Your task to perform on an android device: Clear all items from cart on walmart.com. Add "usb-c to usb-a" to the cart on walmart.com Image 0: 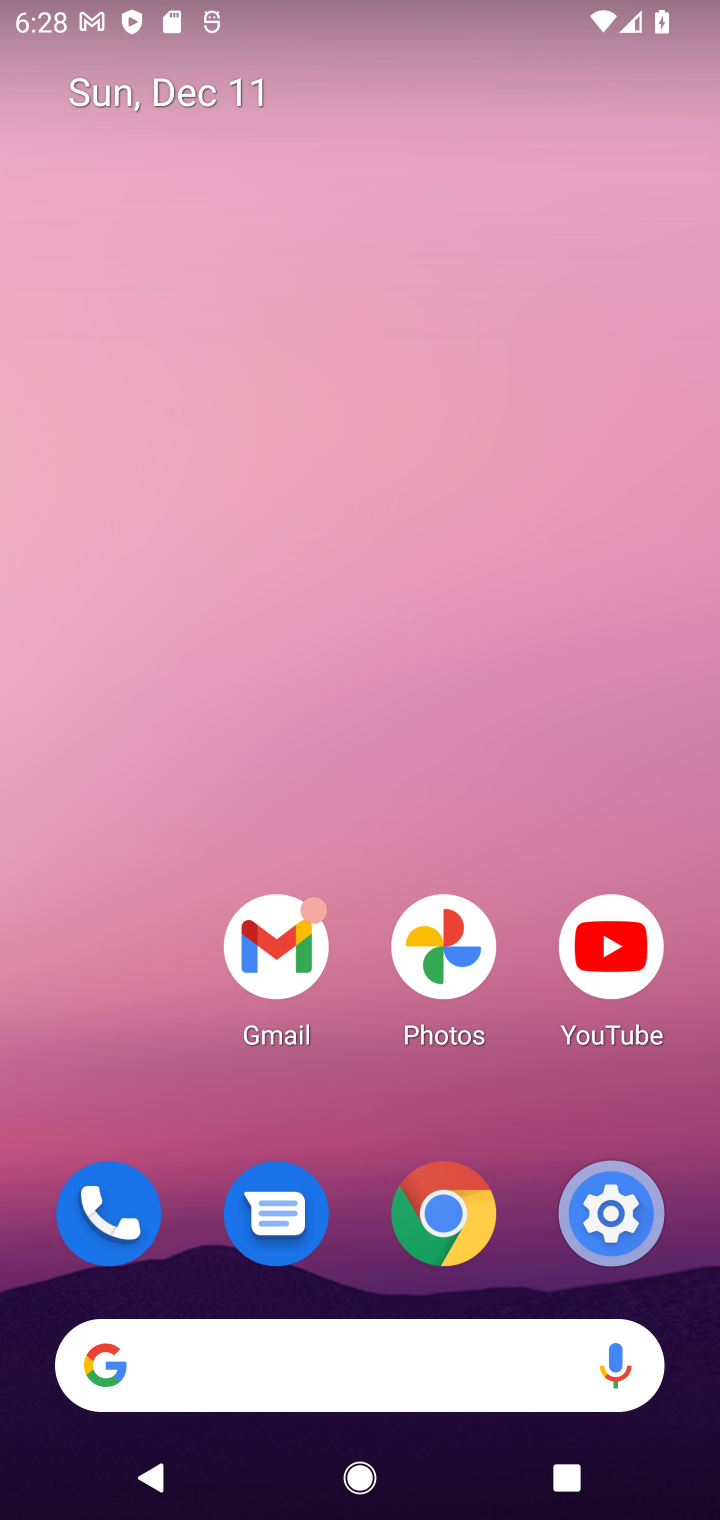
Step 0: click (401, 1354)
Your task to perform on an android device: Clear all items from cart on walmart.com. Add "usb-c to usb-a" to the cart on walmart.com Image 1: 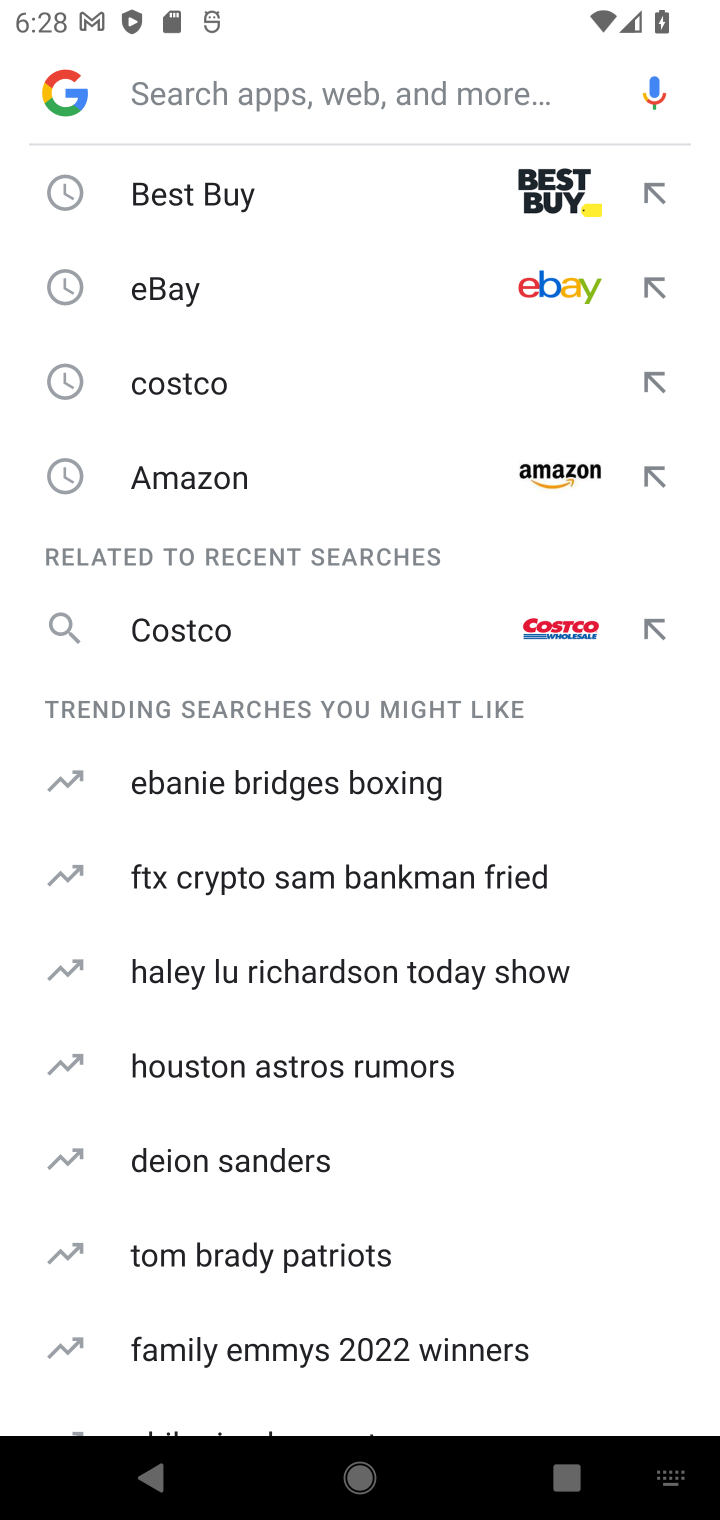
Step 1: type "walmart'"
Your task to perform on an android device: Clear all items from cart on walmart.com. Add "usb-c to usb-a" to the cart on walmart.com Image 2: 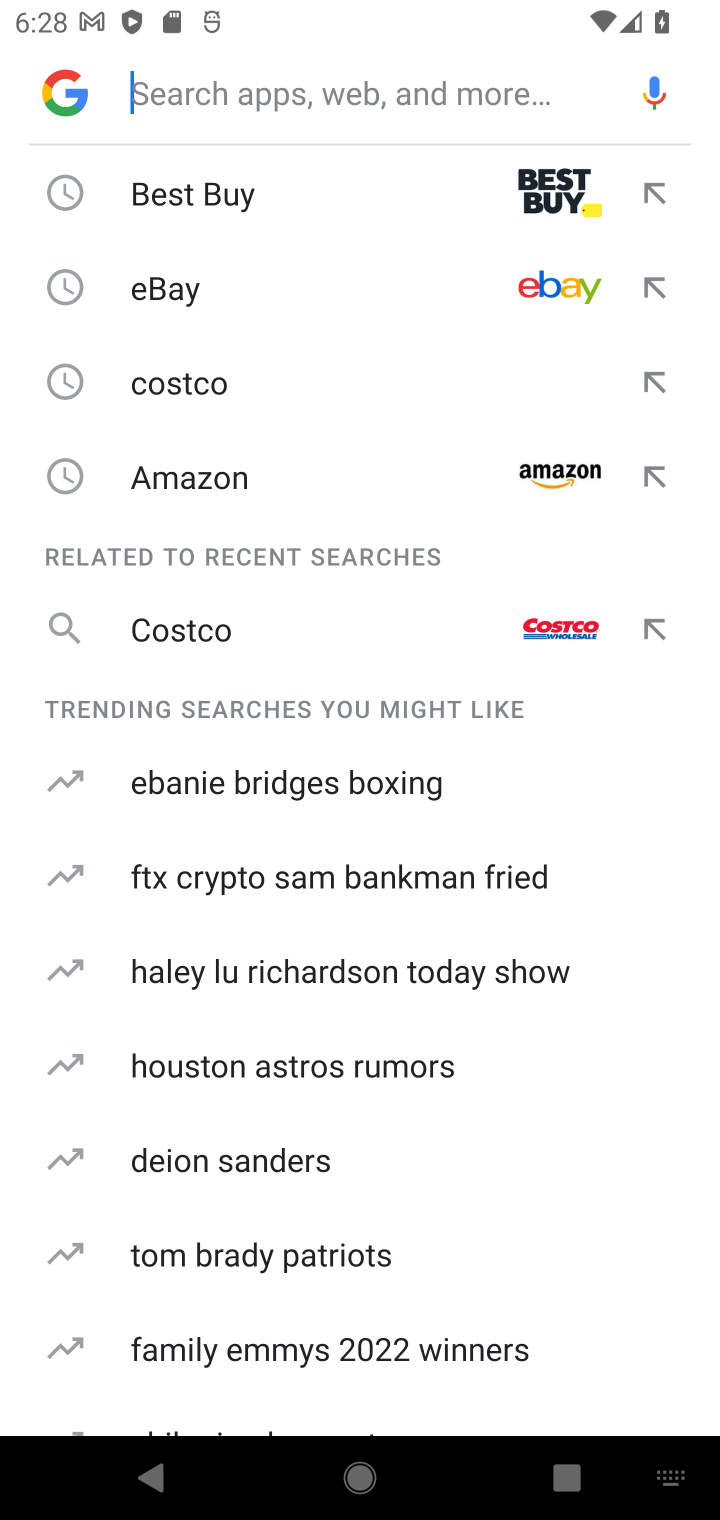
Step 2: click (284, 110)
Your task to perform on an android device: Clear all items from cart on walmart.com. Add "usb-c to usb-a" to the cart on walmart.com Image 3: 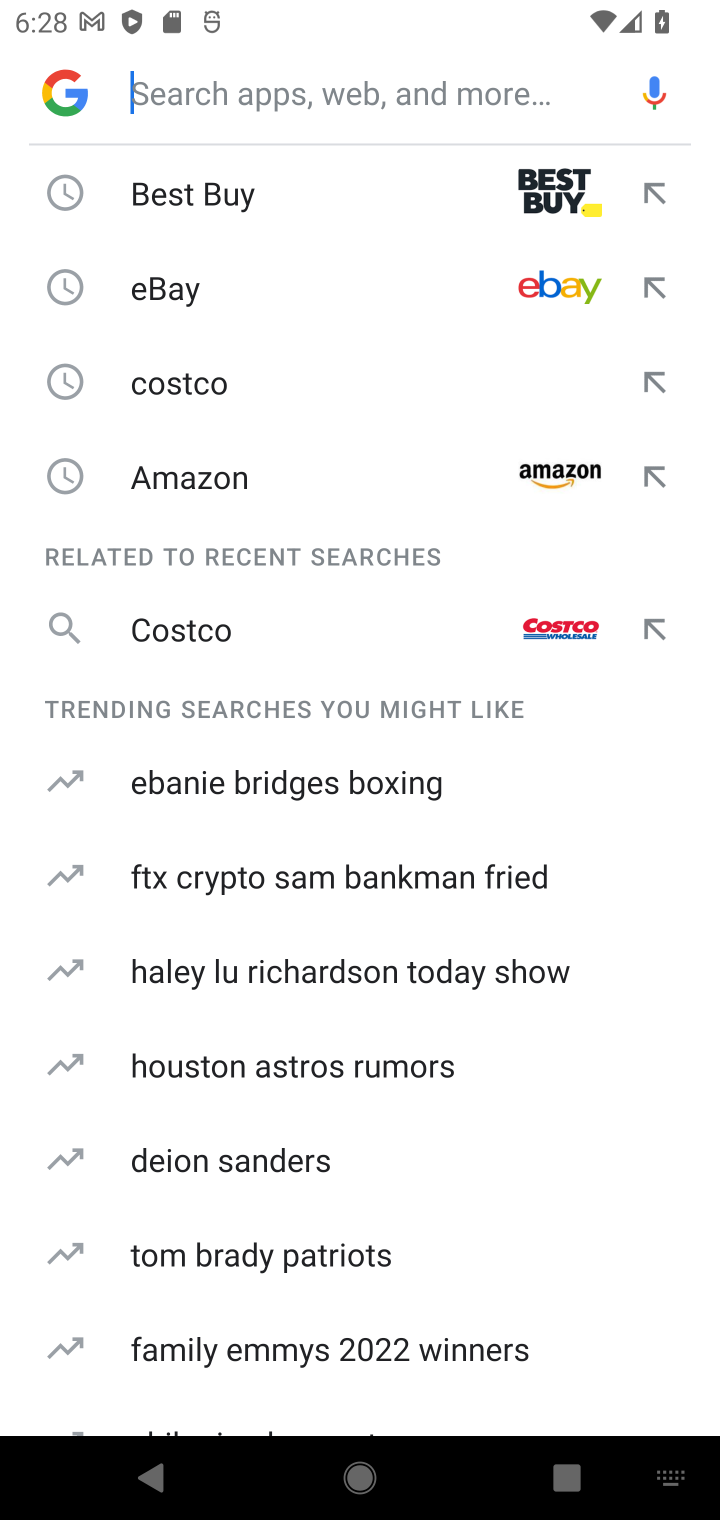
Step 3: click (284, 110)
Your task to perform on an android device: Clear all items from cart on walmart.com. Add "usb-c to usb-a" to the cart on walmart.com Image 4: 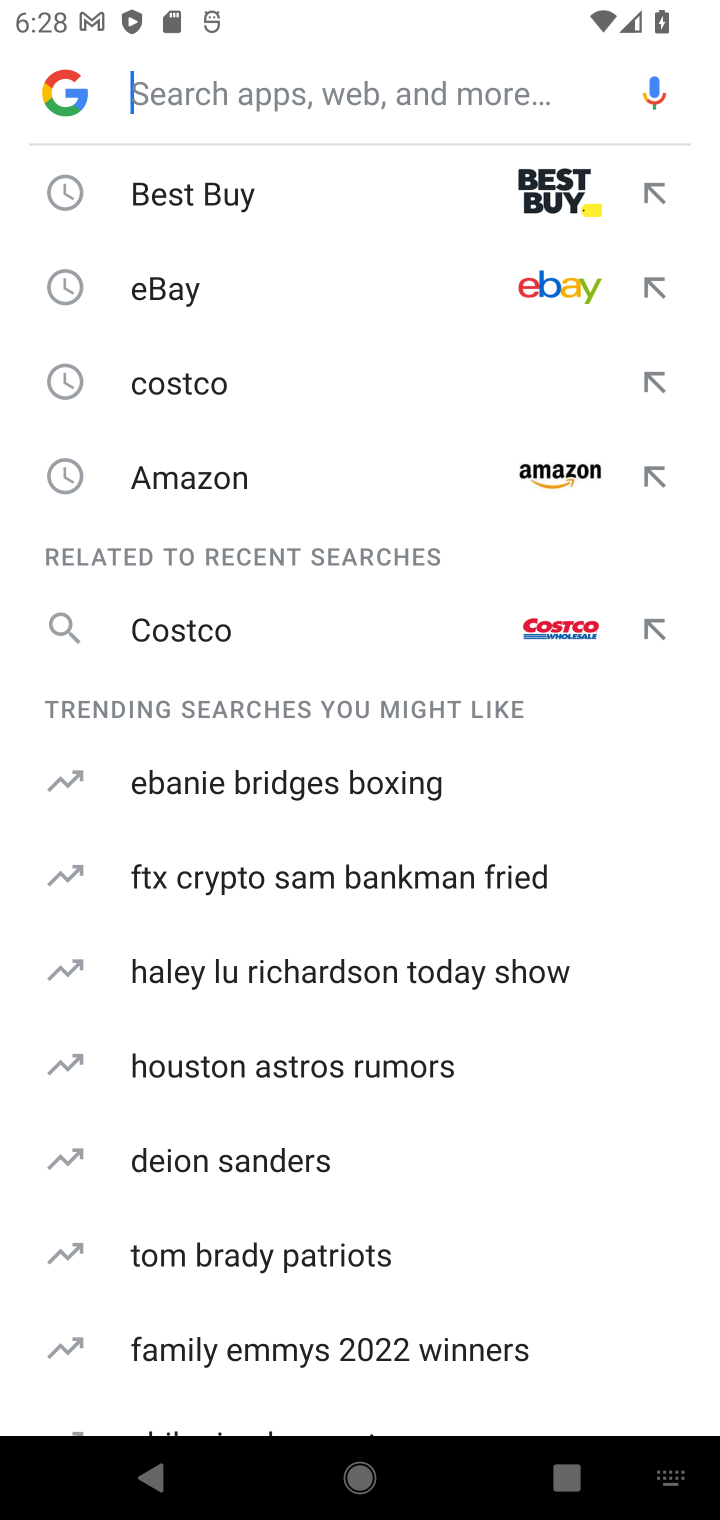
Step 4: type "walmart"
Your task to perform on an android device: Clear all items from cart on walmart.com. Add "usb-c to usb-a" to the cart on walmart.com Image 5: 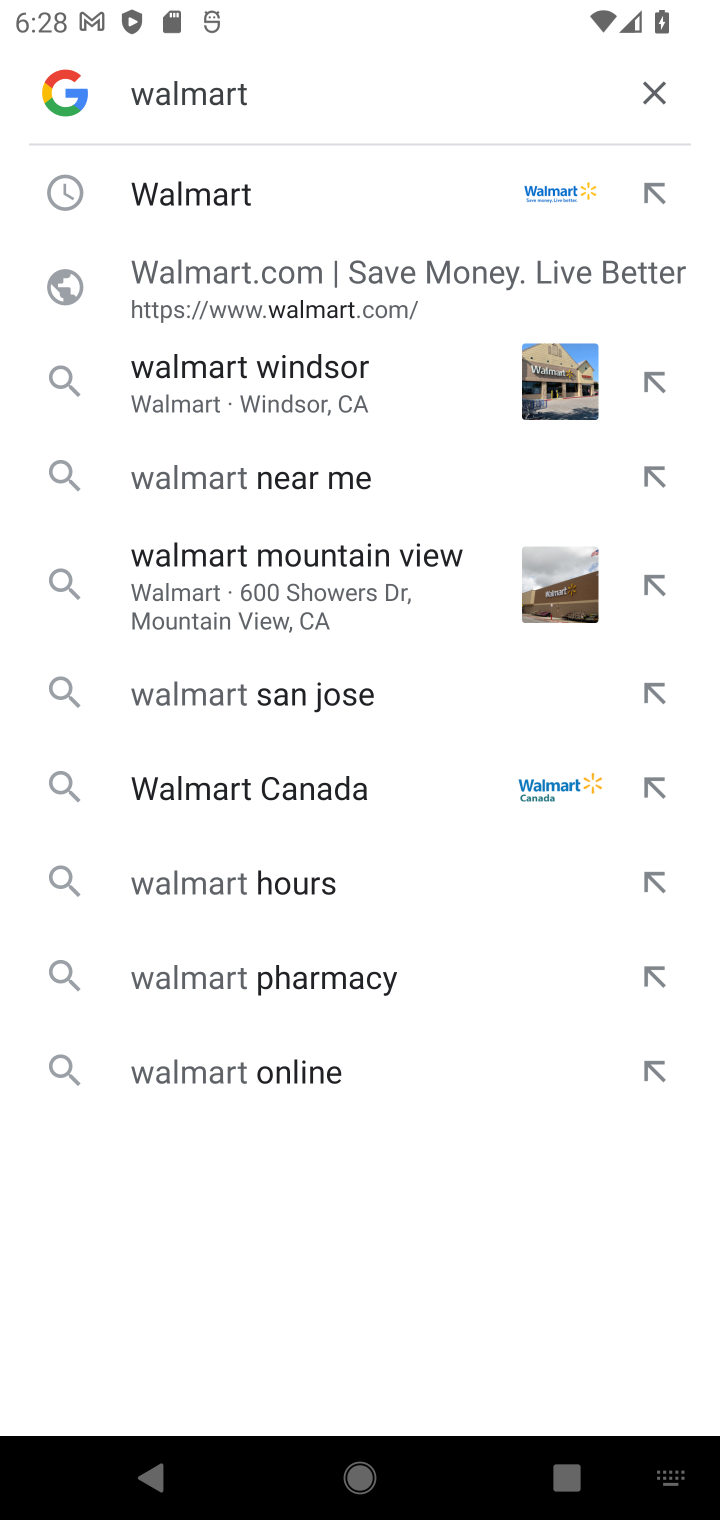
Step 5: click (389, 202)
Your task to perform on an android device: Clear all items from cart on walmart.com. Add "usb-c to usb-a" to the cart on walmart.com Image 6: 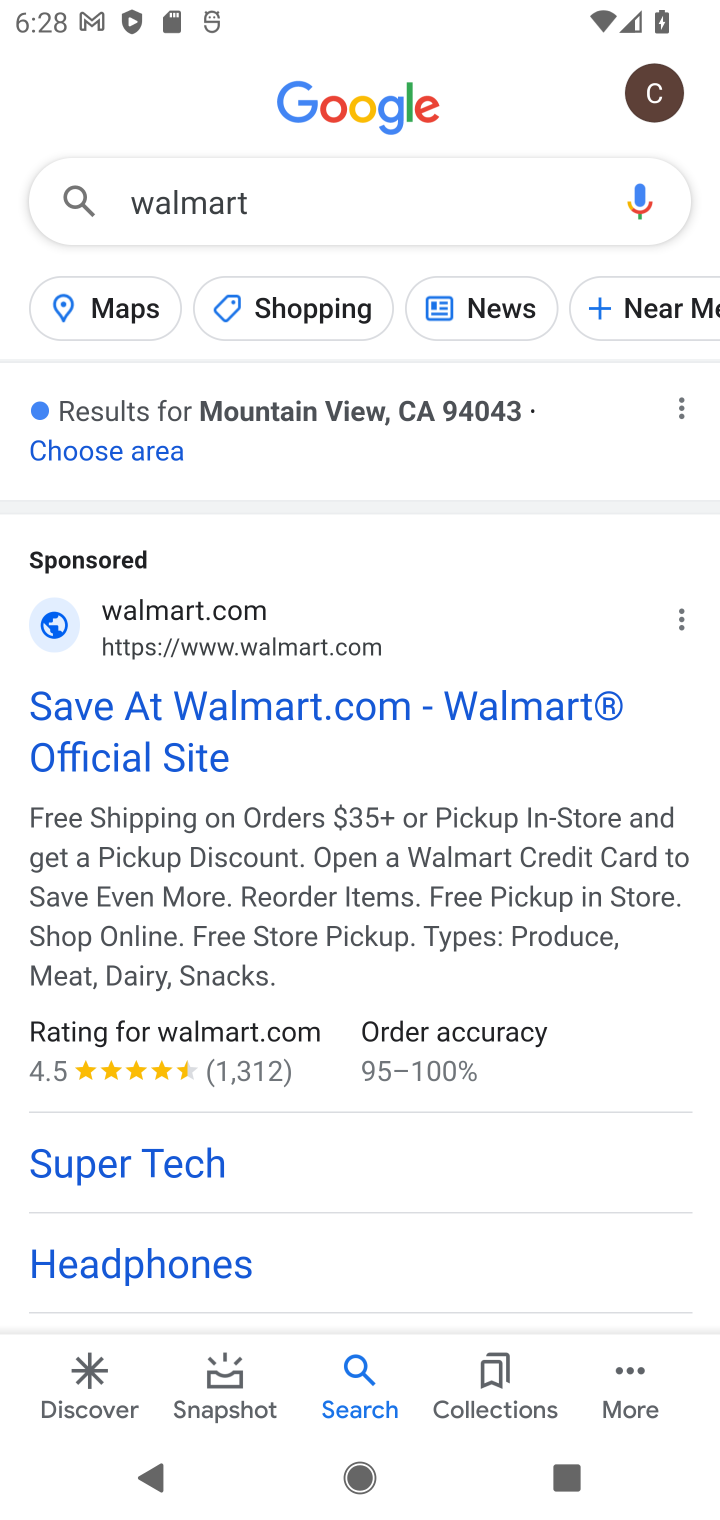
Step 6: click (269, 745)
Your task to perform on an android device: Clear all items from cart on walmart.com. Add "usb-c to usb-a" to the cart on walmart.com Image 7: 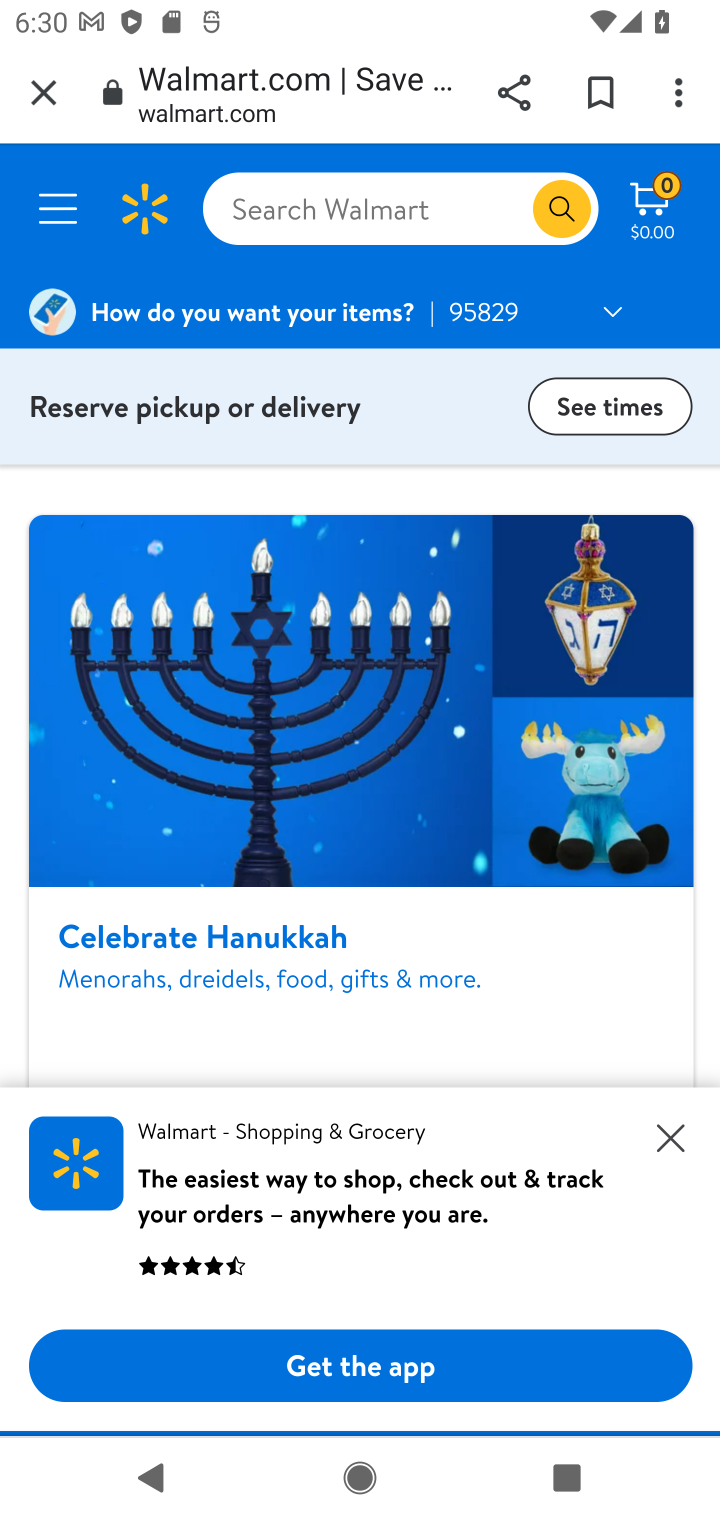
Step 7: click (323, 223)
Your task to perform on an android device: Clear all items from cart on walmart.com. Add "usb-c to usb-a" to the cart on walmart.com Image 8: 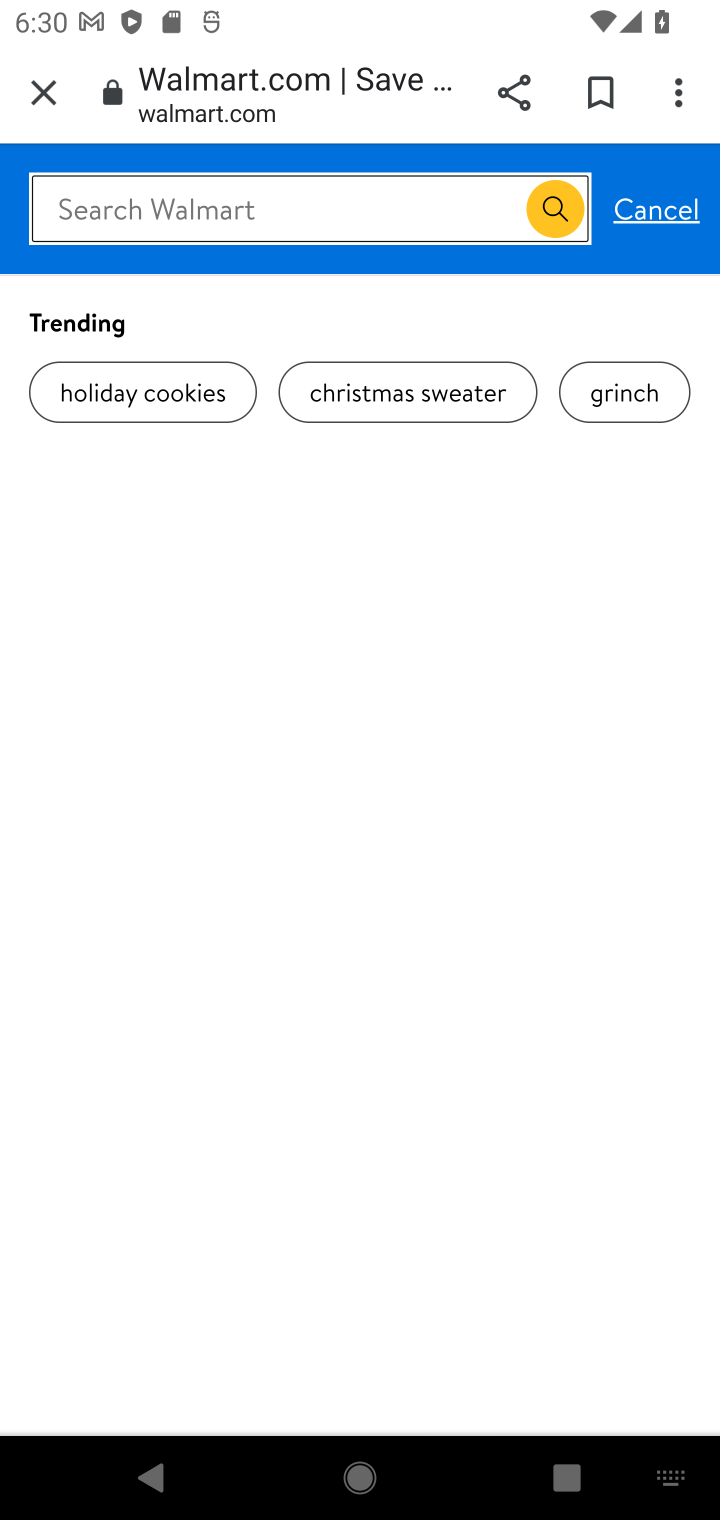
Step 8: type "usb-c to usb-b"
Your task to perform on an android device: Clear all items from cart on walmart.com. Add "usb-c to usb-a" to the cart on walmart.com Image 9: 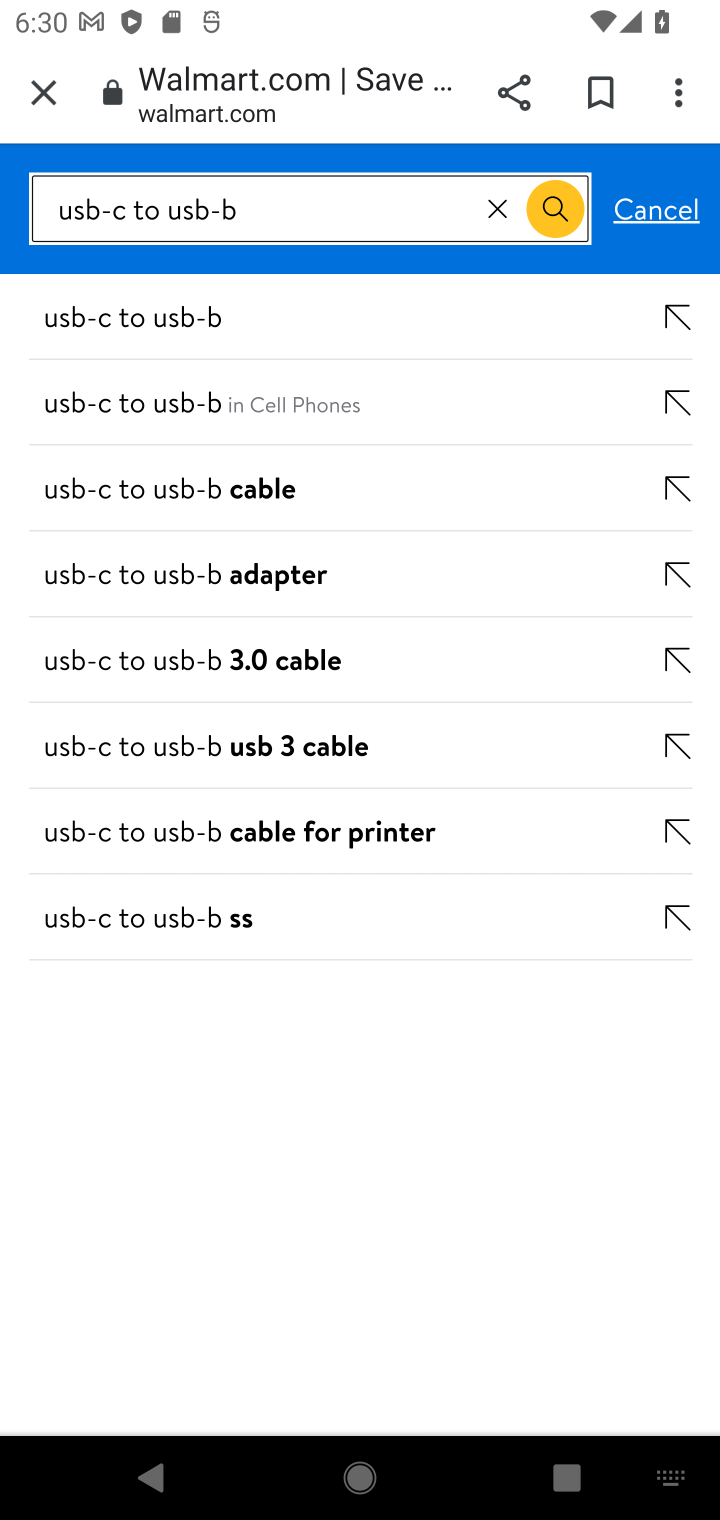
Step 9: click (183, 321)
Your task to perform on an android device: Clear all items from cart on walmart.com. Add "usb-c to usb-a" to the cart on walmart.com Image 10: 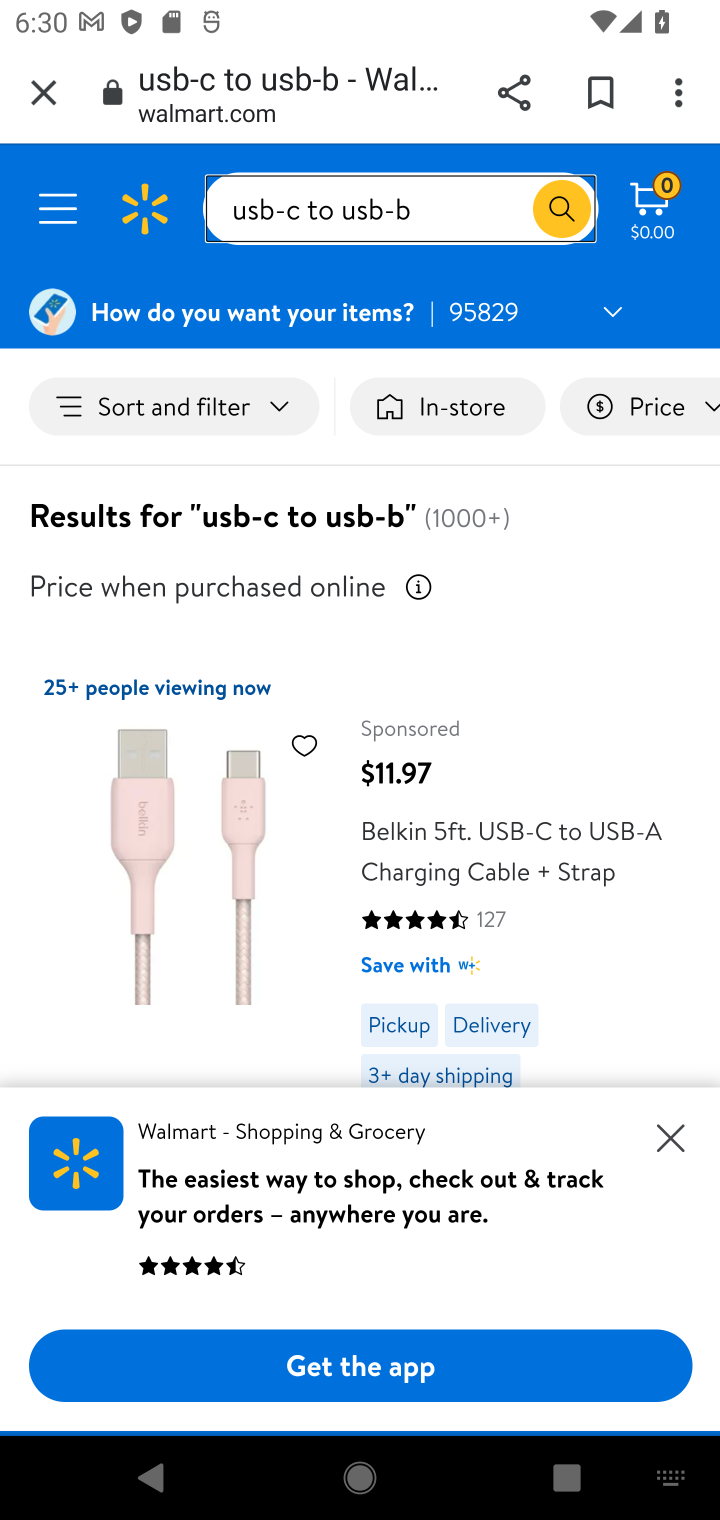
Step 10: click (660, 1161)
Your task to perform on an android device: Clear all items from cart on walmart.com. Add "usb-c to usb-a" to the cart on walmart.com Image 11: 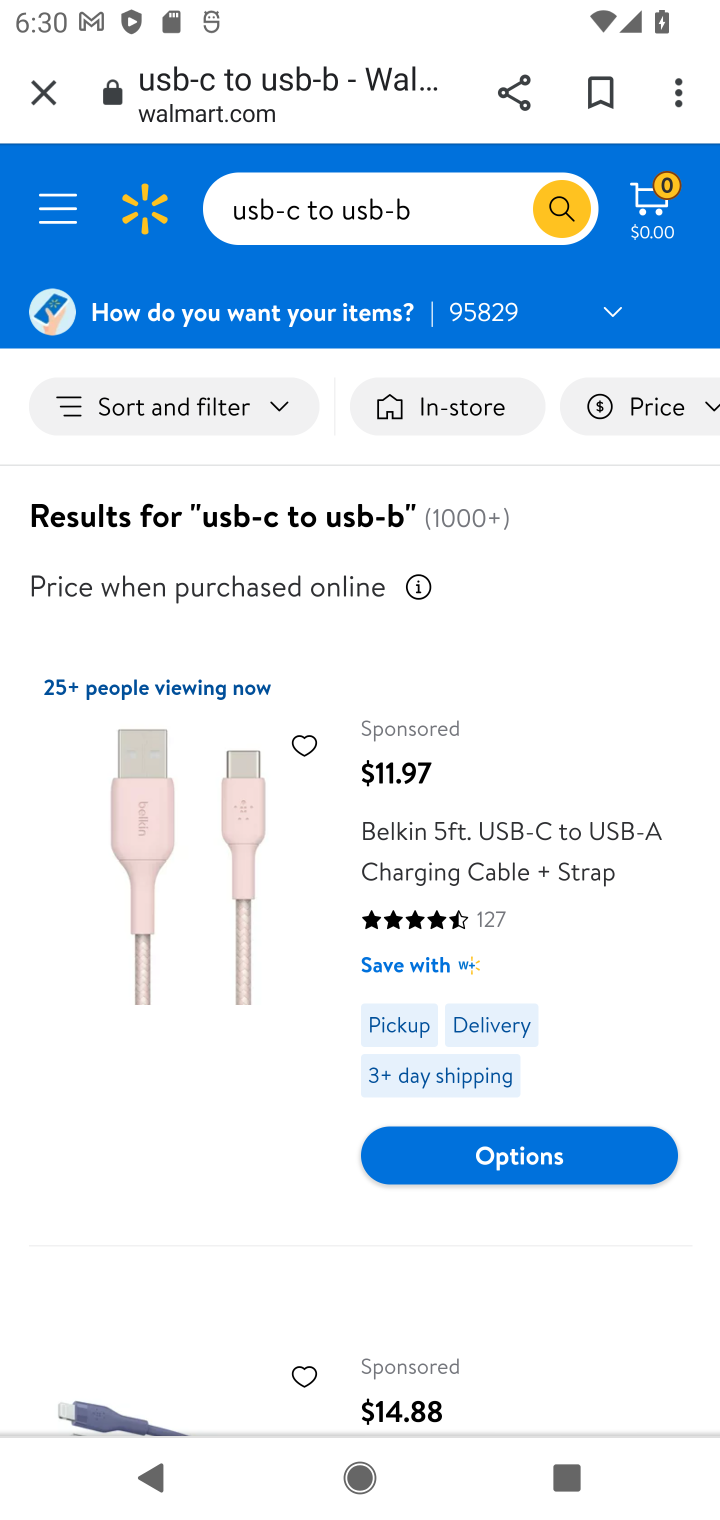
Step 11: click (645, 1161)
Your task to perform on an android device: Clear all items from cart on walmart.com. Add "usb-c to usb-a" to the cart on walmart.com Image 12: 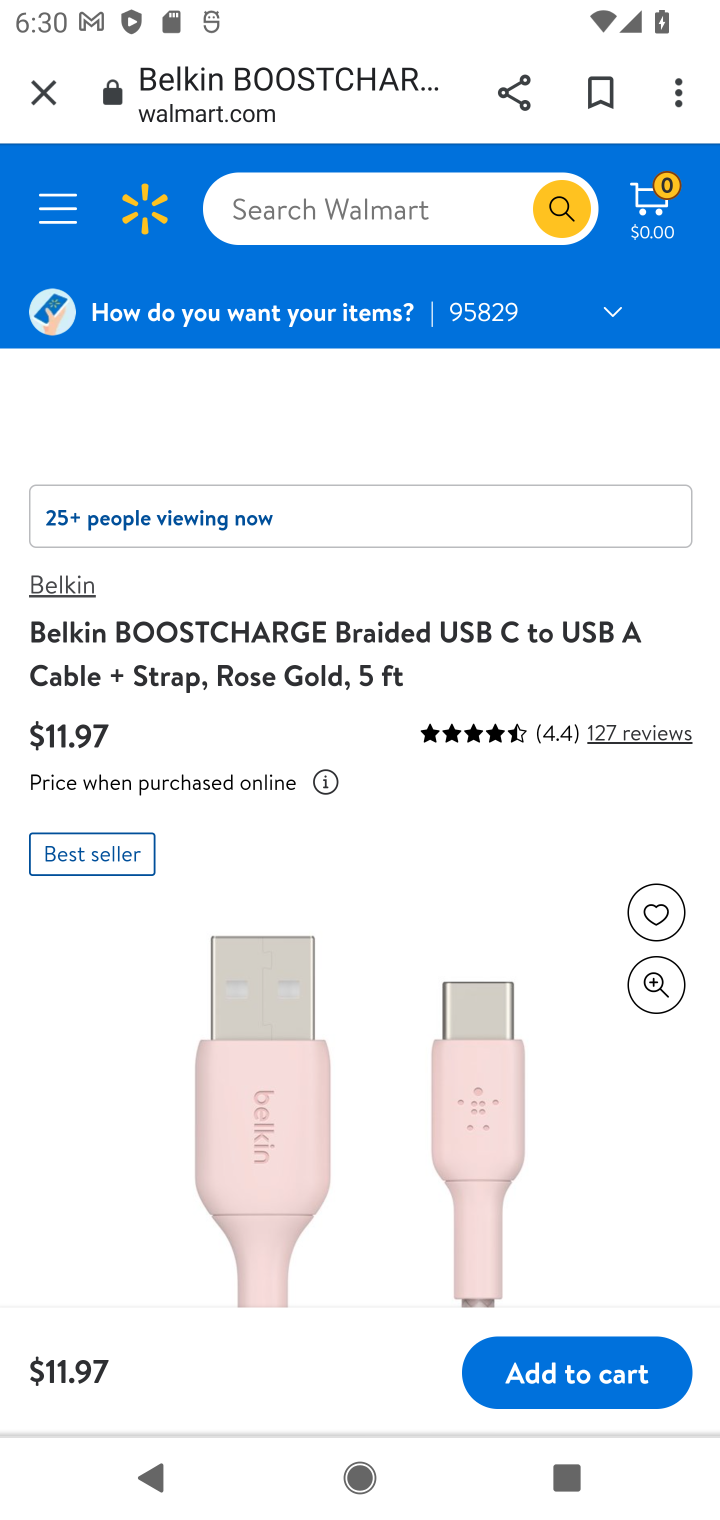
Step 12: click (600, 1376)
Your task to perform on an android device: Clear all items from cart on walmart.com. Add "usb-c to usb-a" to the cart on walmart.com Image 13: 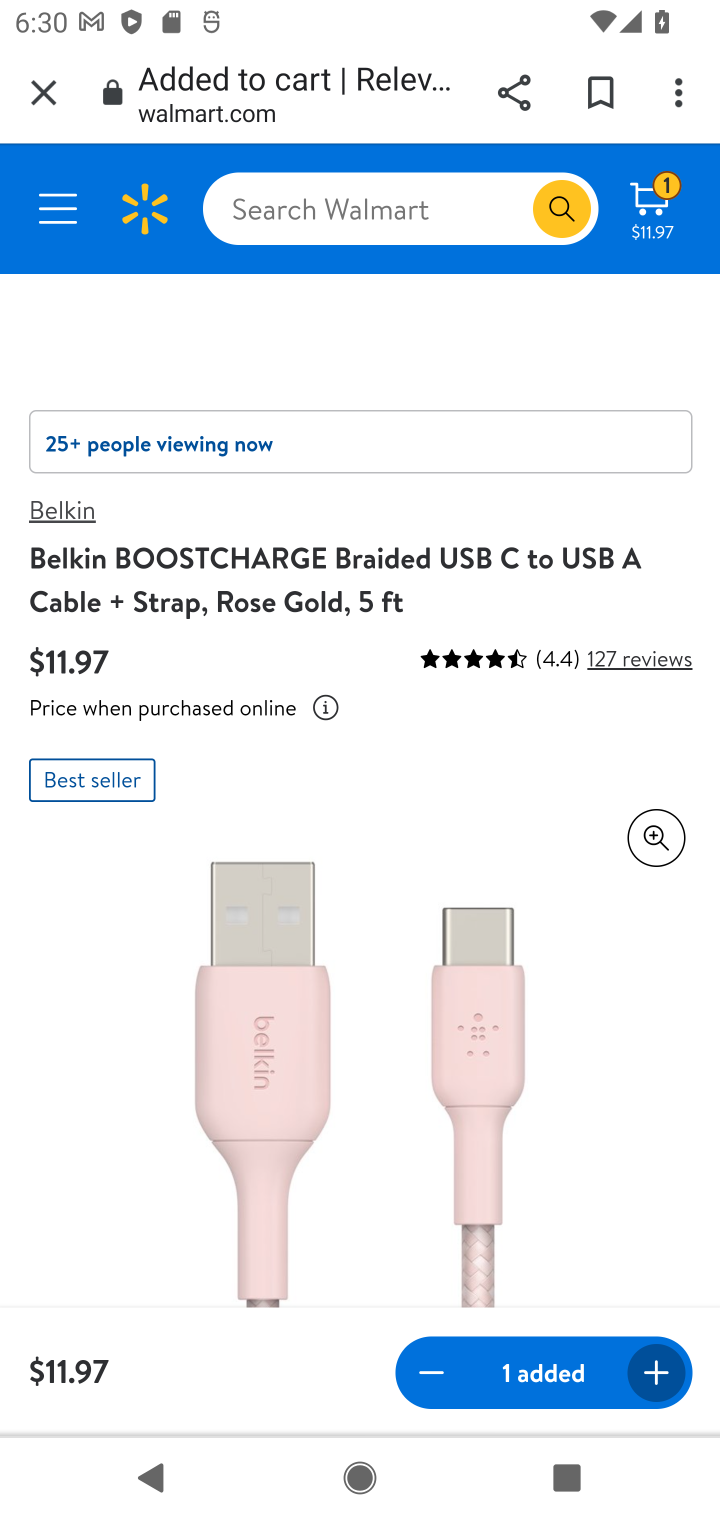
Step 13: task complete